Your task to perform on an android device: check data usage Image 0: 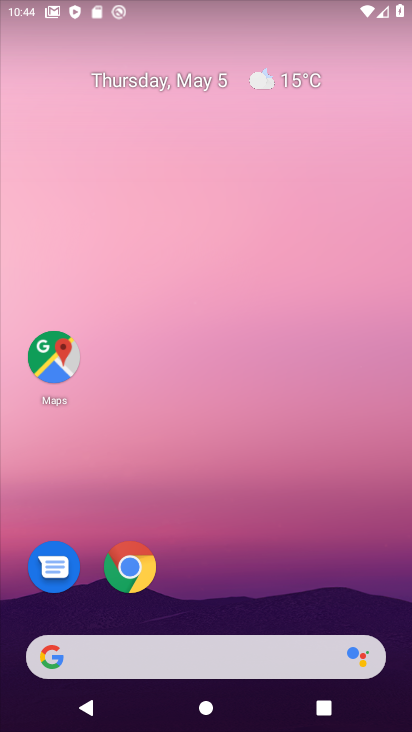
Step 0: drag from (138, 247) to (75, 67)
Your task to perform on an android device: check data usage Image 1: 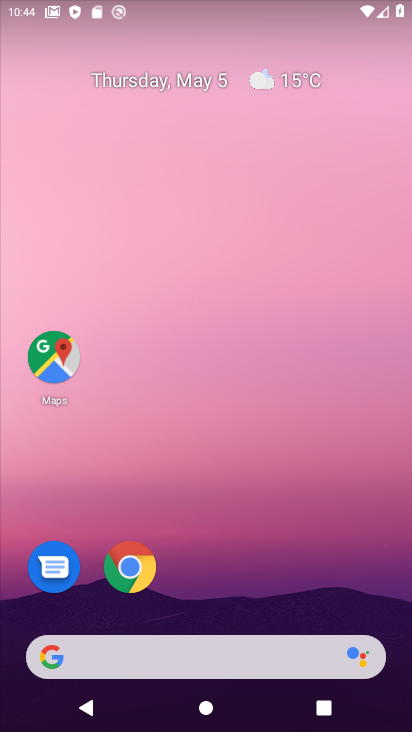
Step 1: drag from (224, 419) to (232, 40)
Your task to perform on an android device: check data usage Image 2: 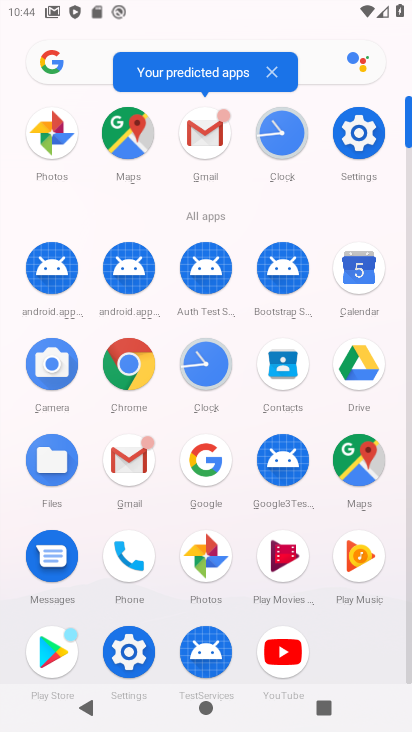
Step 2: click (360, 150)
Your task to perform on an android device: check data usage Image 3: 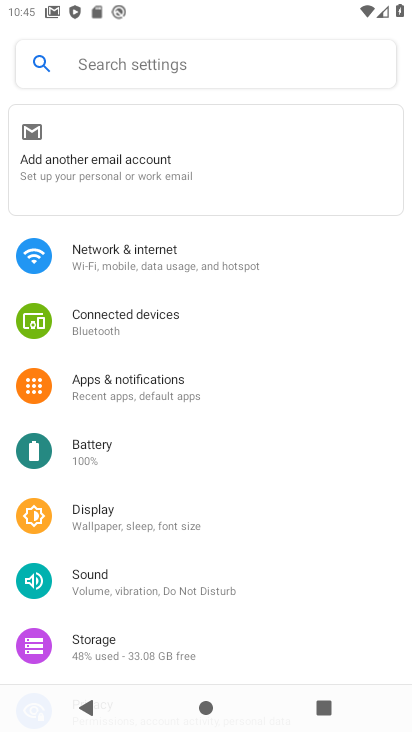
Step 3: drag from (151, 629) to (143, 325)
Your task to perform on an android device: check data usage Image 4: 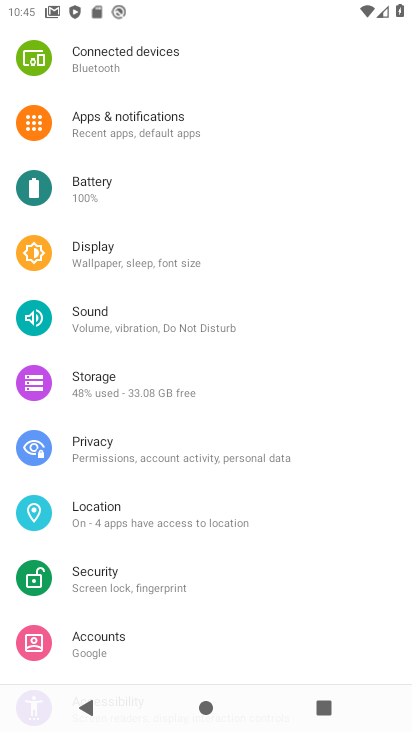
Step 4: drag from (150, 117) to (137, 433)
Your task to perform on an android device: check data usage Image 5: 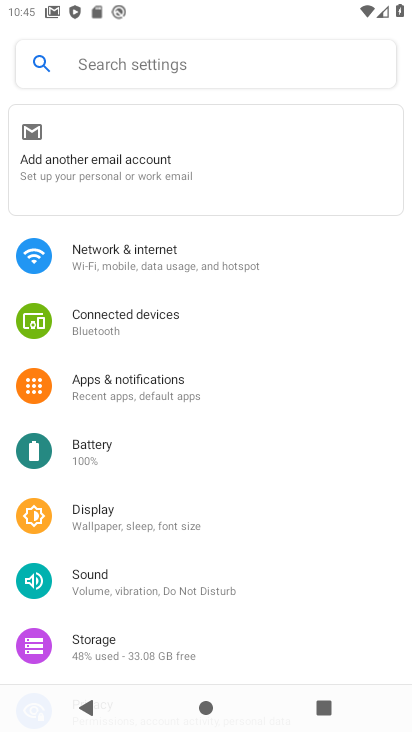
Step 5: click (113, 268)
Your task to perform on an android device: check data usage Image 6: 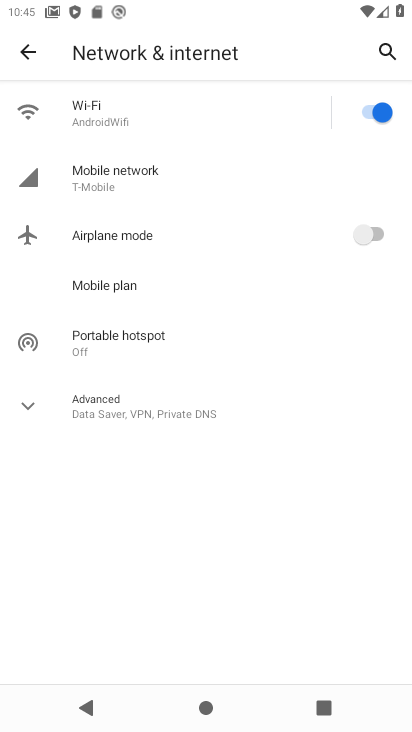
Step 6: click (90, 125)
Your task to perform on an android device: check data usage Image 7: 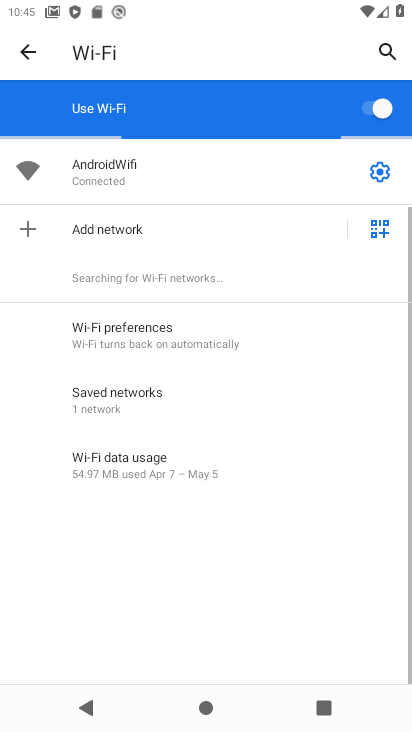
Step 7: click (135, 468)
Your task to perform on an android device: check data usage Image 8: 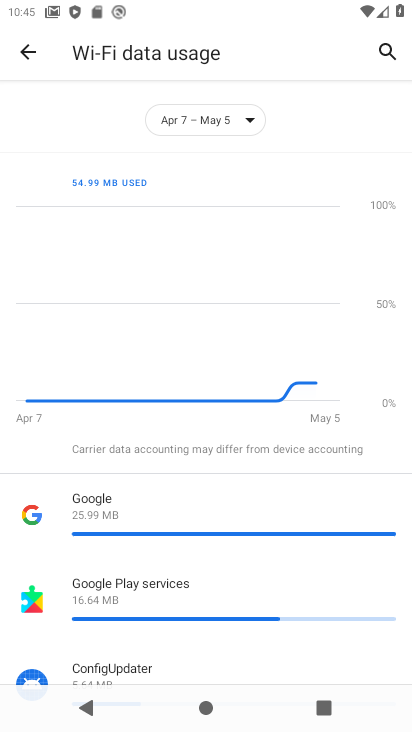
Step 8: task complete